Your task to perform on an android device: find snoozed emails in the gmail app Image 0: 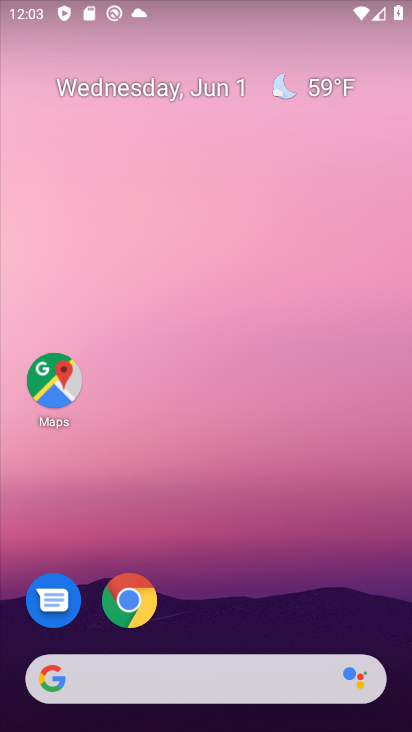
Step 0: drag from (328, 305) to (267, 30)
Your task to perform on an android device: find snoozed emails in the gmail app Image 1: 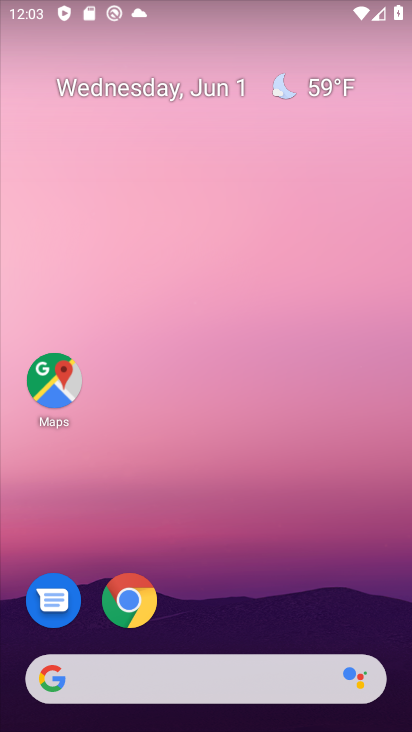
Step 1: drag from (217, 632) to (339, 6)
Your task to perform on an android device: find snoozed emails in the gmail app Image 2: 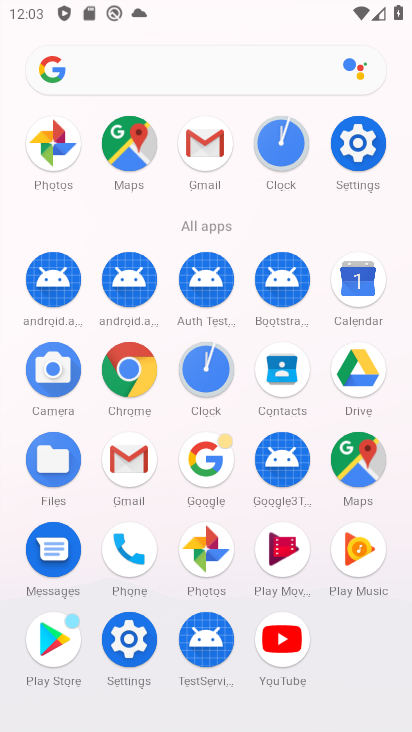
Step 2: click (141, 463)
Your task to perform on an android device: find snoozed emails in the gmail app Image 3: 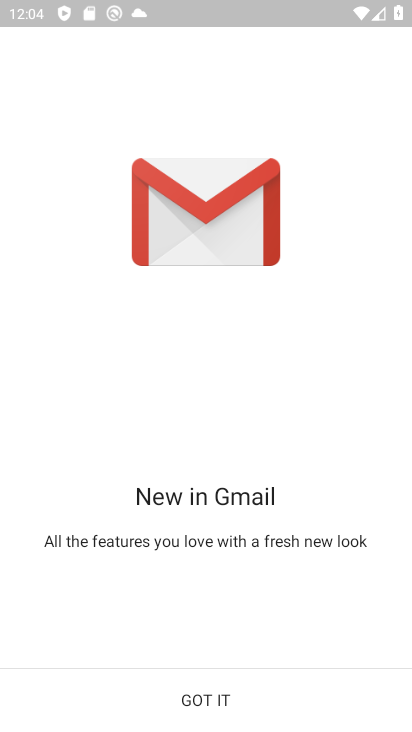
Step 3: click (196, 706)
Your task to perform on an android device: find snoozed emails in the gmail app Image 4: 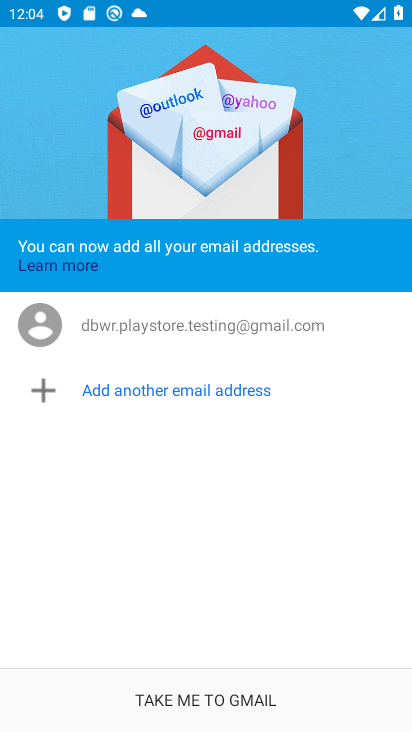
Step 4: click (196, 706)
Your task to perform on an android device: find snoozed emails in the gmail app Image 5: 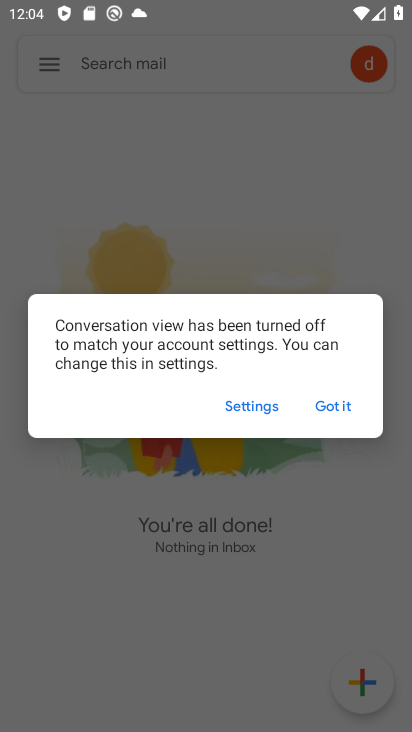
Step 5: click (350, 406)
Your task to perform on an android device: find snoozed emails in the gmail app Image 6: 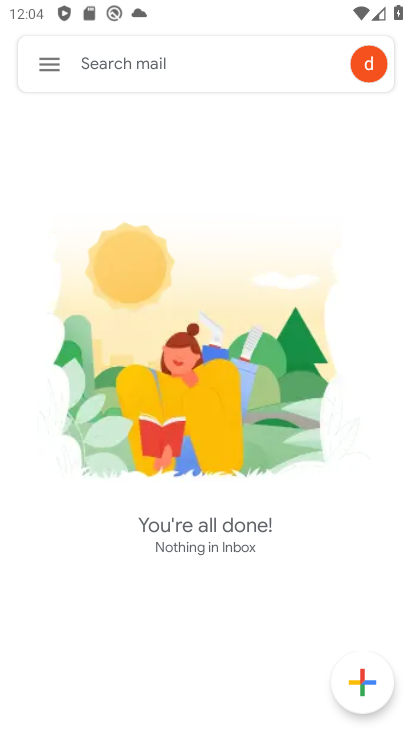
Step 6: click (47, 74)
Your task to perform on an android device: find snoozed emails in the gmail app Image 7: 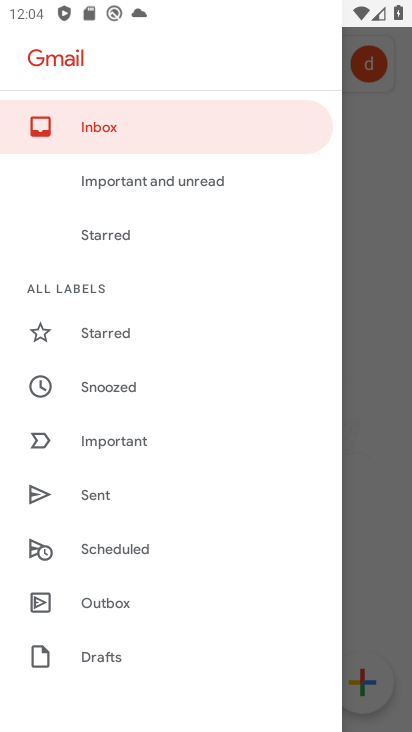
Step 7: drag from (134, 649) to (209, 160)
Your task to perform on an android device: find snoozed emails in the gmail app Image 8: 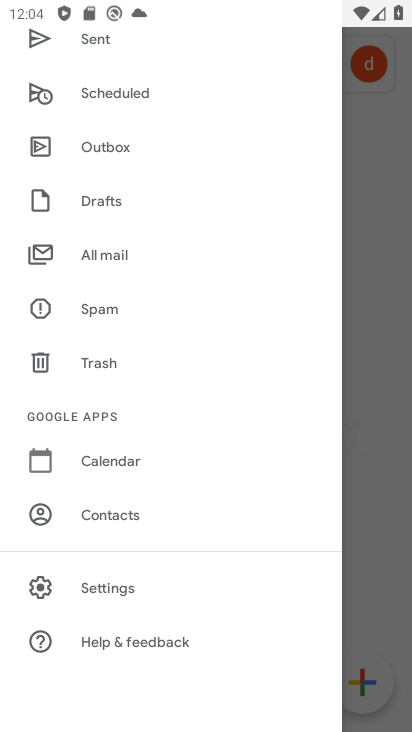
Step 8: drag from (188, 135) to (186, 664)
Your task to perform on an android device: find snoozed emails in the gmail app Image 9: 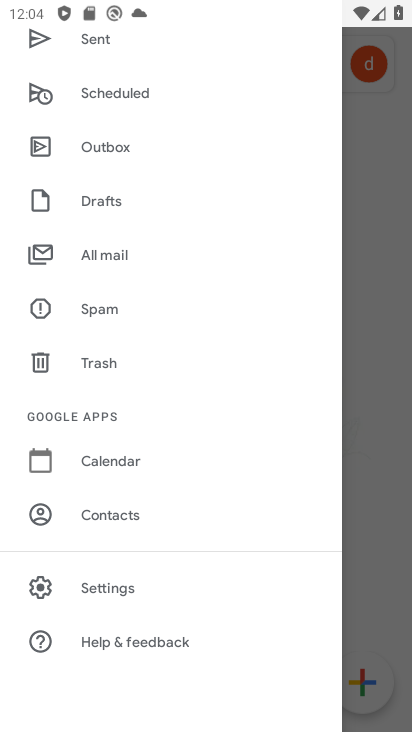
Step 9: drag from (196, 139) to (200, 719)
Your task to perform on an android device: find snoozed emails in the gmail app Image 10: 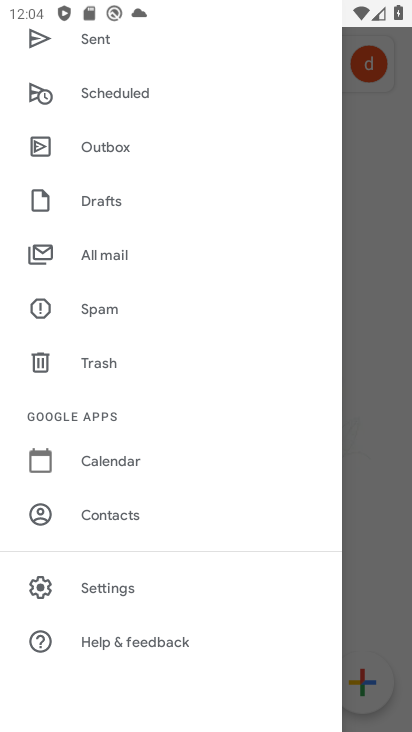
Step 10: drag from (198, 142) to (243, 688)
Your task to perform on an android device: find snoozed emails in the gmail app Image 11: 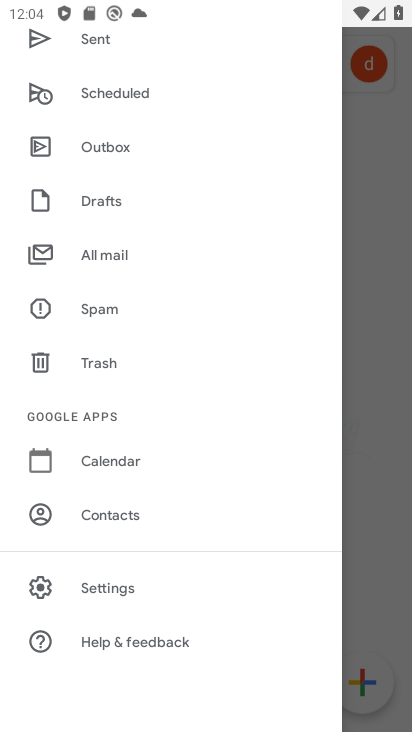
Step 11: drag from (112, 55) to (166, 626)
Your task to perform on an android device: find snoozed emails in the gmail app Image 12: 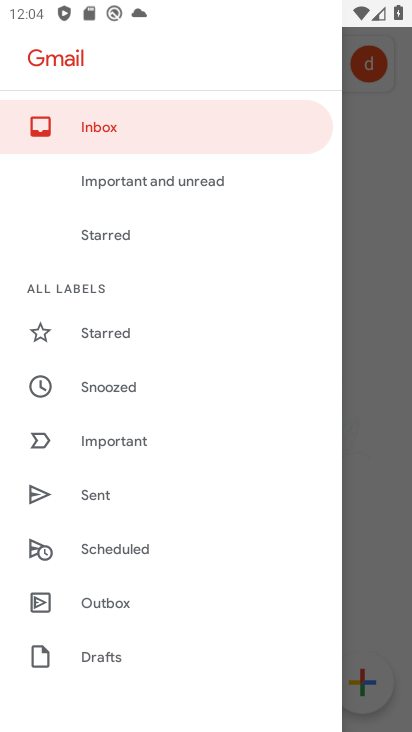
Step 12: click (136, 386)
Your task to perform on an android device: find snoozed emails in the gmail app Image 13: 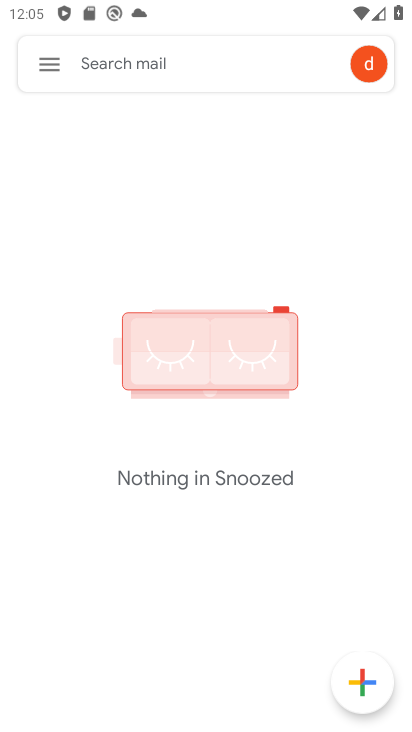
Step 13: task complete